Your task to perform on an android device: Play the last video I watched on Youtube Image 0: 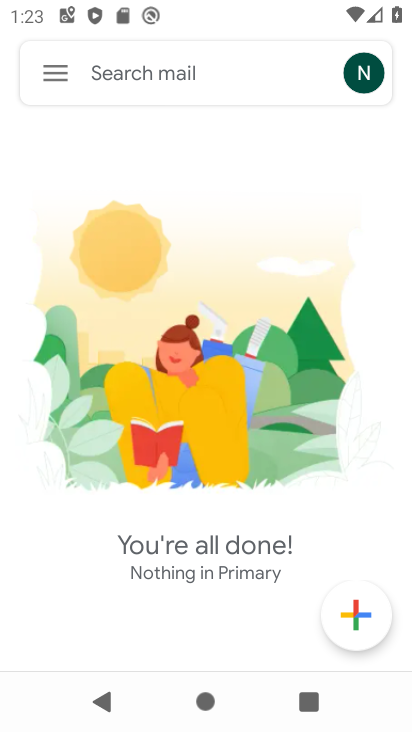
Step 0: press home button
Your task to perform on an android device: Play the last video I watched on Youtube Image 1: 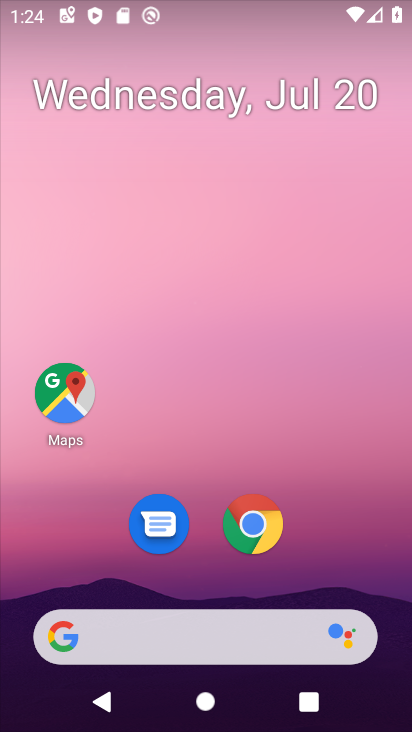
Step 1: drag from (325, 552) to (340, 23)
Your task to perform on an android device: Play the last video I watched on Youtube Image 2: 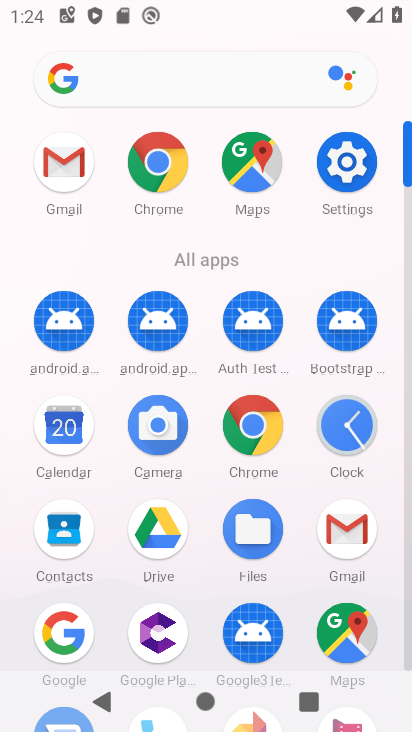
Step 2: drag from (310, 501) to (305, 129)
Your task to perform on an android device: Play the last video I watched on Youtube Image 3: 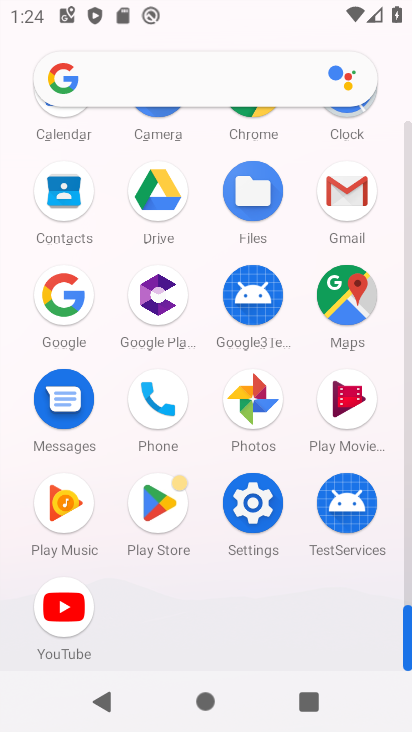
Step 3: click (65, 594)
Your task to perform on an android device: Play the last video I watched on Youtube Image 4: 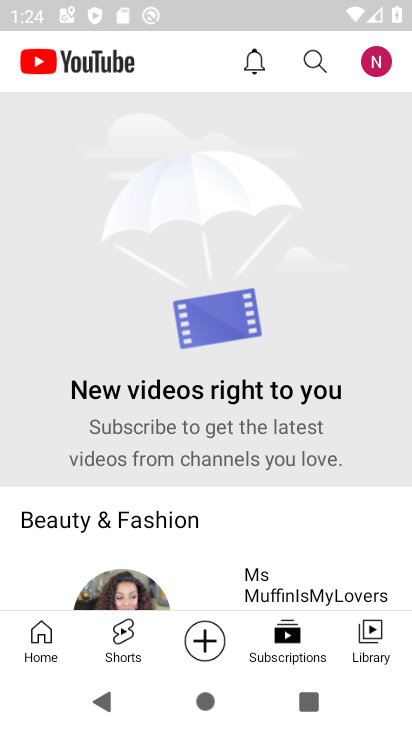
Step 4: click (371, 629)
Your task to perform on an android device: Play the last video I watched on Youtube Image 5: 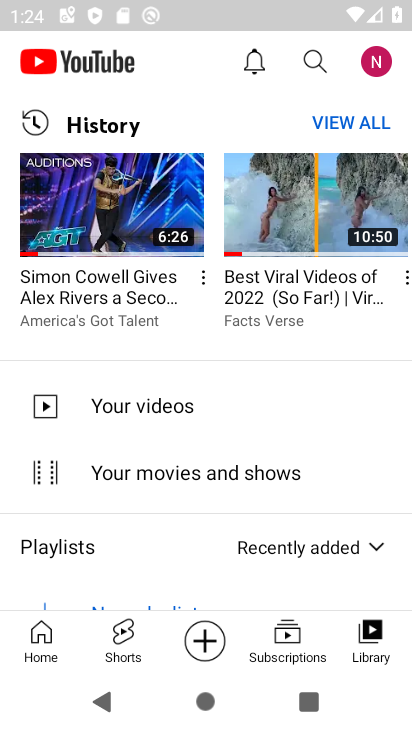
Step 5: click (120, 214)
Your task to perform on an android device: Play the last video I watched on Youtube Image 6: 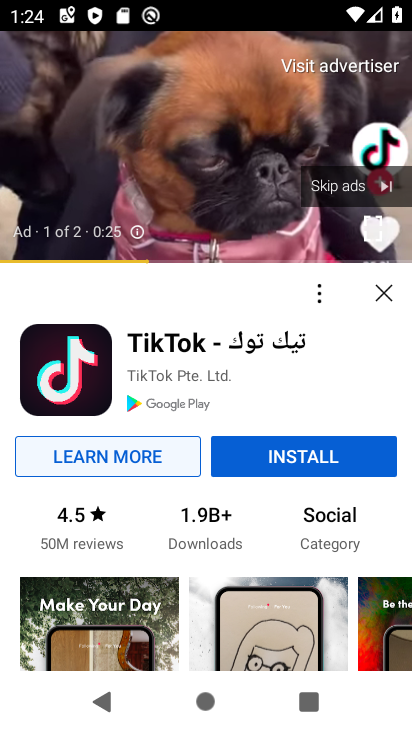
Step 6: click (339, 187)
Your task to perform on an android device: Play the last video I watched on Youtube Image 7: 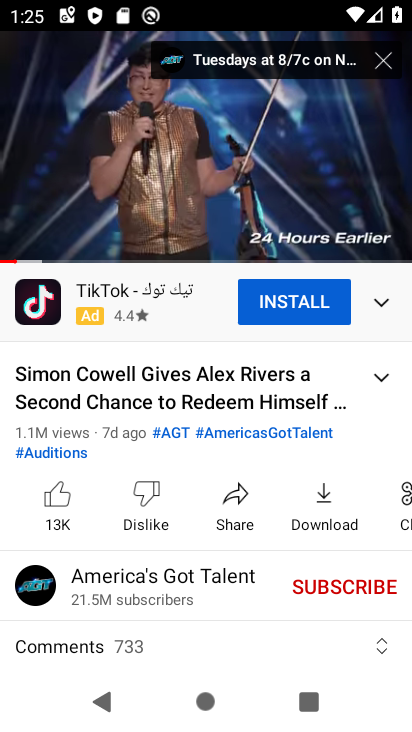
Step 7: task complete